Your task to perform on an android device: create a new album in the google photos Image 0: 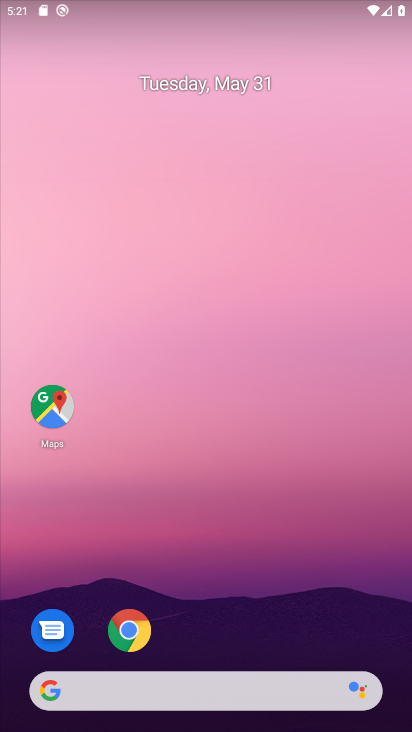
Step 0: drag from (228, 556) to (239, 52)
Your task to perform on an android device: create a new album in the google photos Image 1: 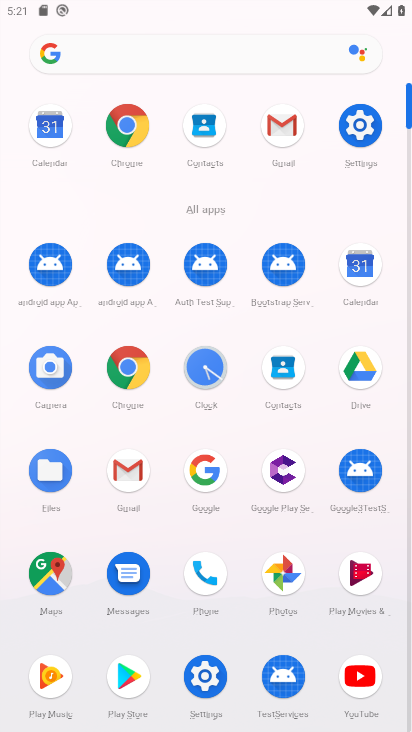
Step 1: click (290, 578)
Your task to perform on an android device: create a new album in the google photos Image 2: 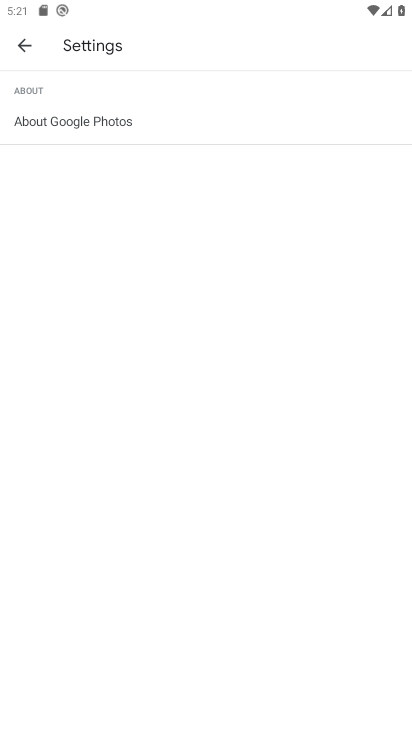
Step 2: click (22, 49)
Your task to perform on an android device: create a new album in the google photos Image 3: 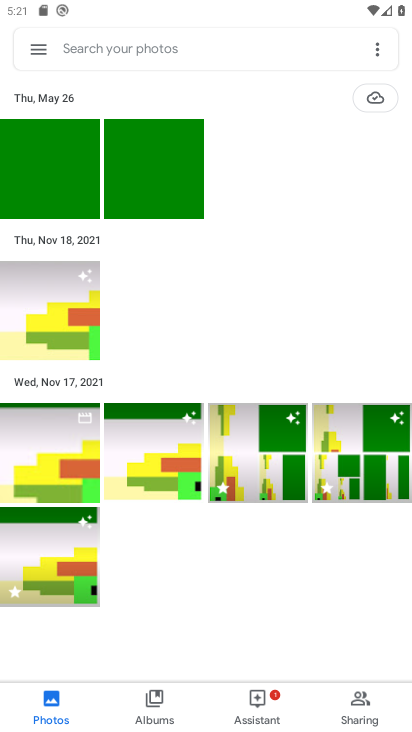
Step 3: click (371, 47)
Your task to perform on an android device: create a new album in the google photos Image 4: 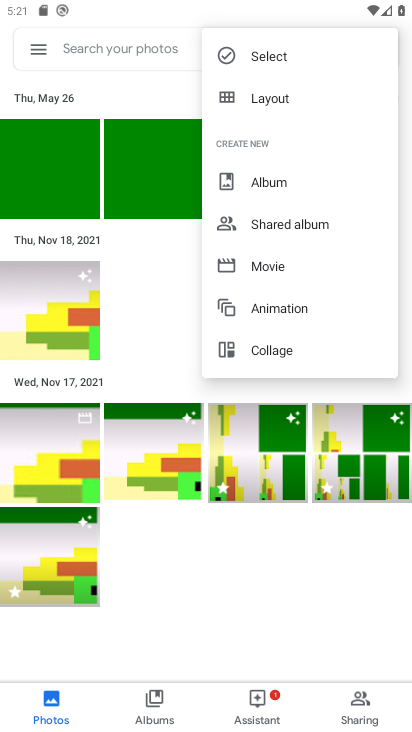
Step 4: click (273, 50)
Your task to perform on an android device: create a new album in the google photos Image 5: 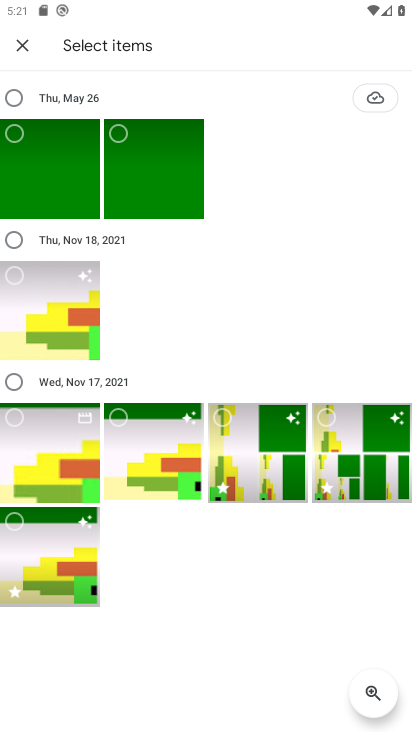
Step 5: click (24, 426)
Your task to perform on an android device: create a new album in the google photos Image 6: 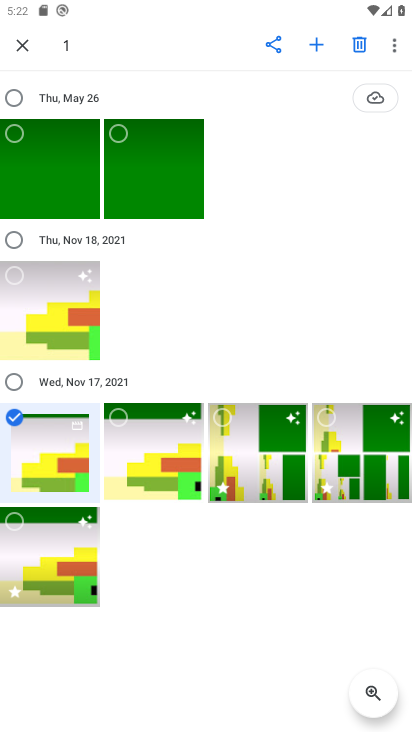
Step 6: click (318, 39)
Your task to perform on an android device: create a new album in the google photos Image 7: 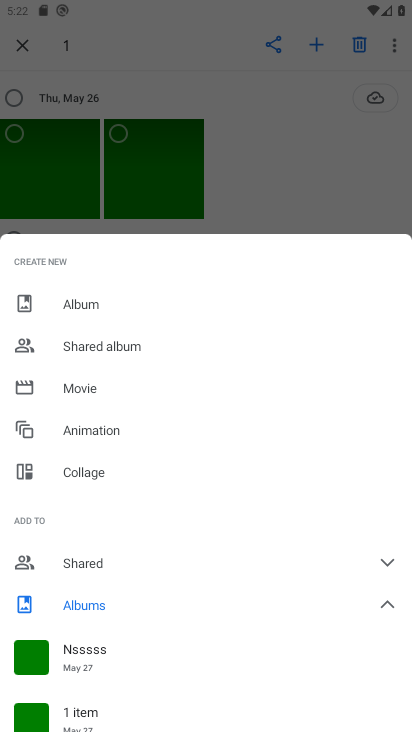
Step 7: click (48, 301)
Your task to perform on an android device: create a new album in the google photos Image 8: 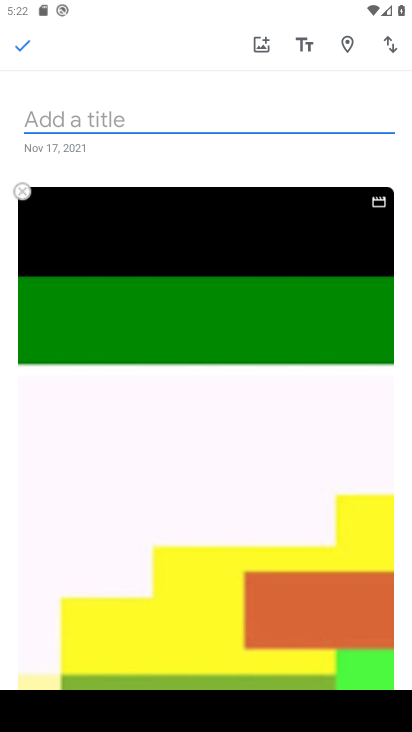
Step 8: type "essent"
Your task to perform on an android device: create a new album in the google photos Image 9: 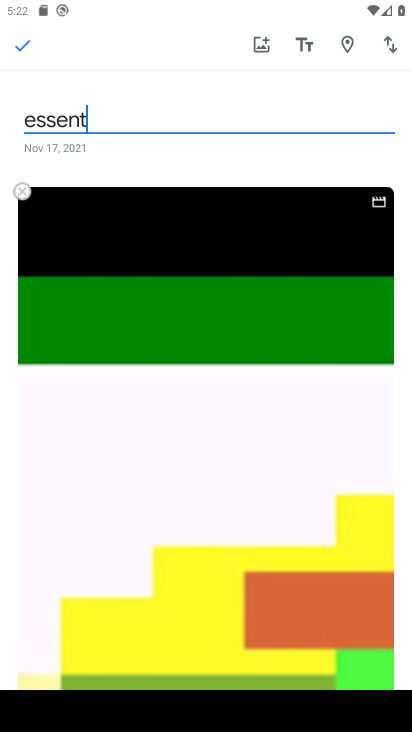
Step 9: click (20, 41)
Your task to perform on an android device: create a new album in the google photos Image 10: 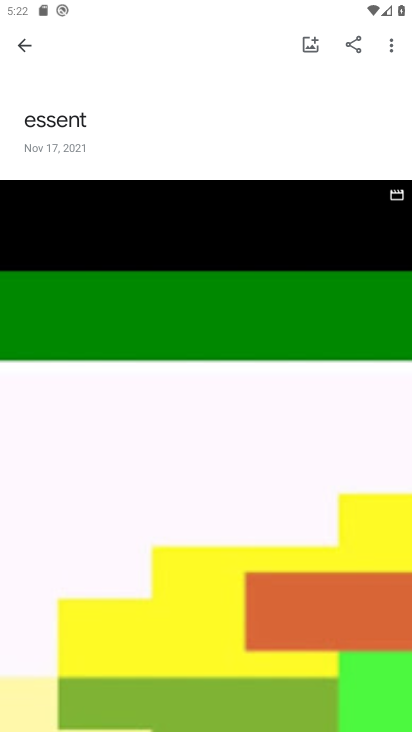
Step 10: task complete